Your task to perform on an android device: Set the phone to "Do not disturb". Image 0: 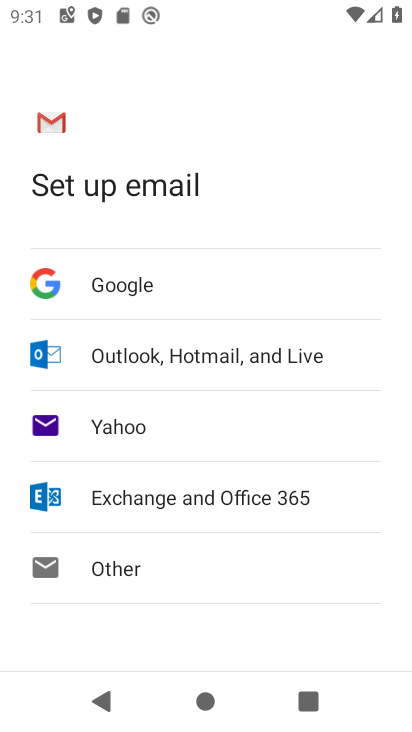
Step 0: press home button
Your task to perform on an android device: Set the phone to "Do not disturb". Image 1: 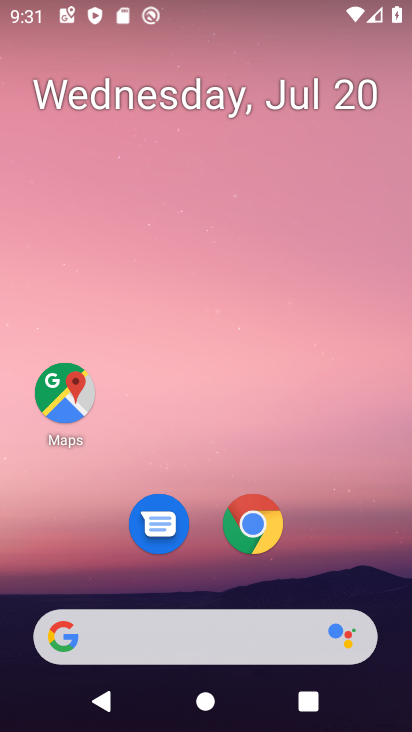
Step 1: drag from (203, 639) to (310, 150)
Your task to perform on an android device: Set the phone to "Do not disturb". Image 2: 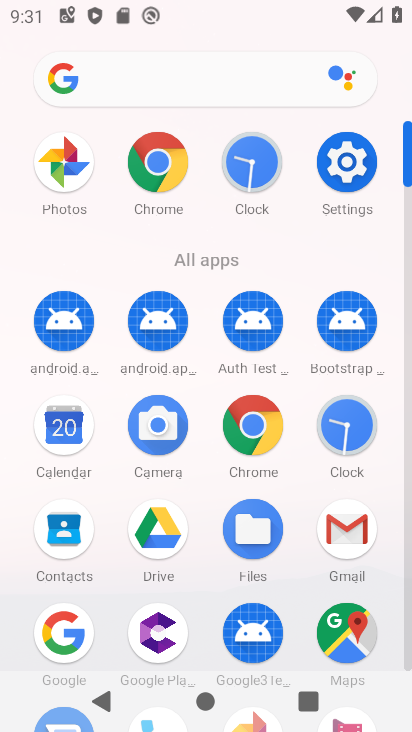
Step 2: click (353, 169)
Your task to perform on an android device: Set the phone to "Do not disturb". Image 3: 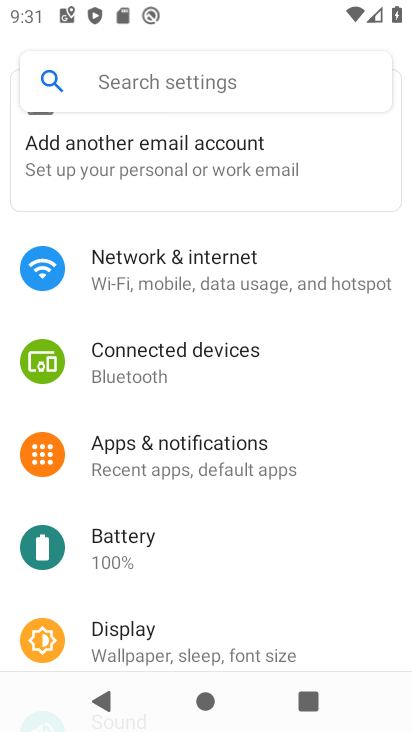
Step 3: drag from (211, 552) to (316, 94)
Your task to perform on an android device: Set the phone to "Do not disturb". Image 4: 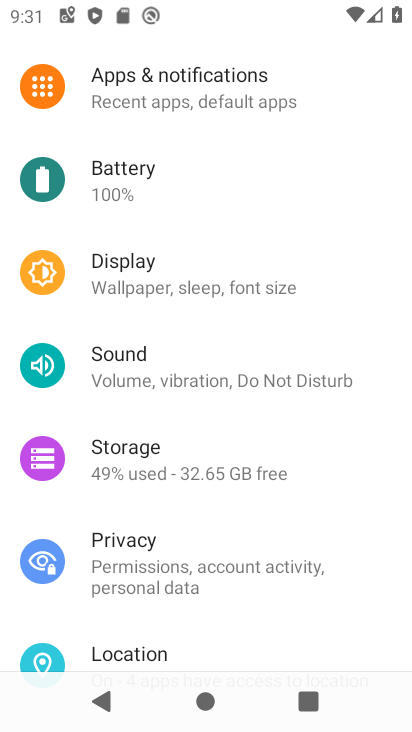
Step 4: click (146, 359)
Your task to perform on an android device: Set the phone to "Do not disturb". Image 5: 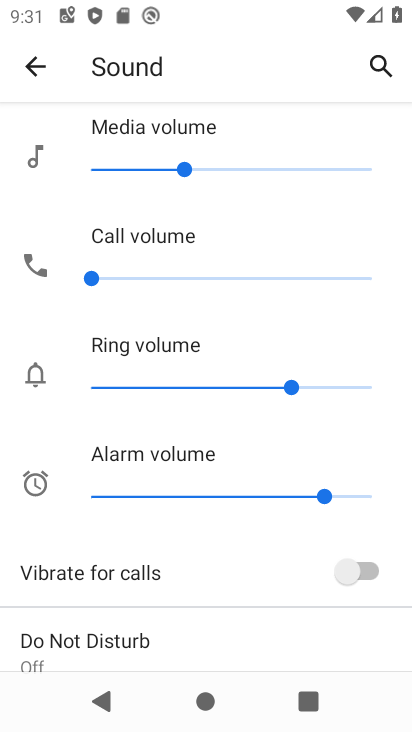
Step 5: drag from (180, 565) to (219, 234)
Your task to perform on an android device: Set the phone to "Do not disturb". Image 6: 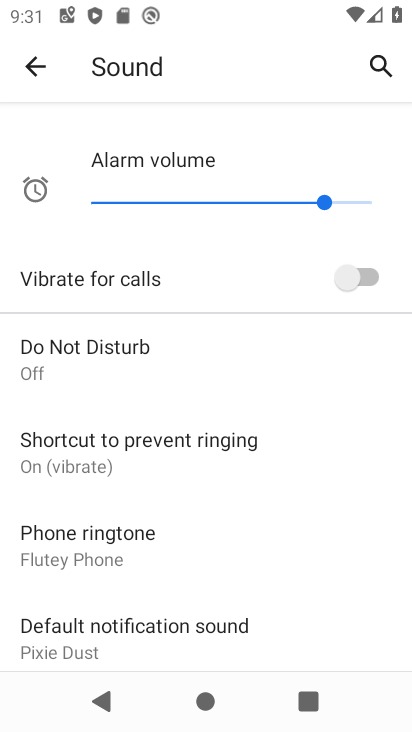
Step 6: click (118, 353)
Your task to perform on an android device: Set the phone to "Do not disturb". Image 7: 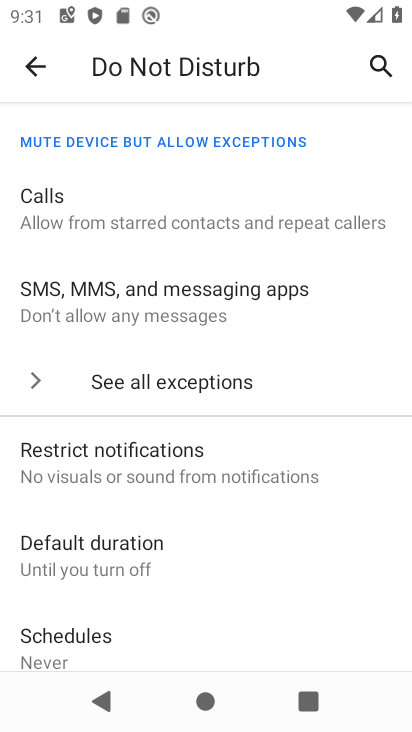
Step 7: drag from (187, 572) to (278, 283)
Your task to perform on an android device: Set the phone to "Do not disturb". Image 8: 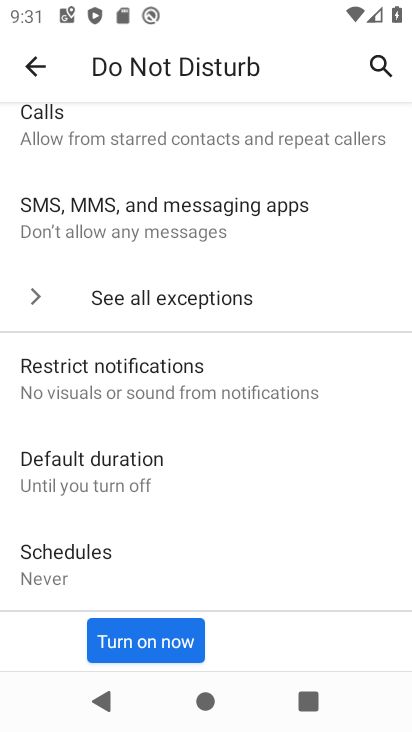
Step 8: click (139, 643)
Your task to perform on an android device: Set the phone to "Do not disturb". Image 9: 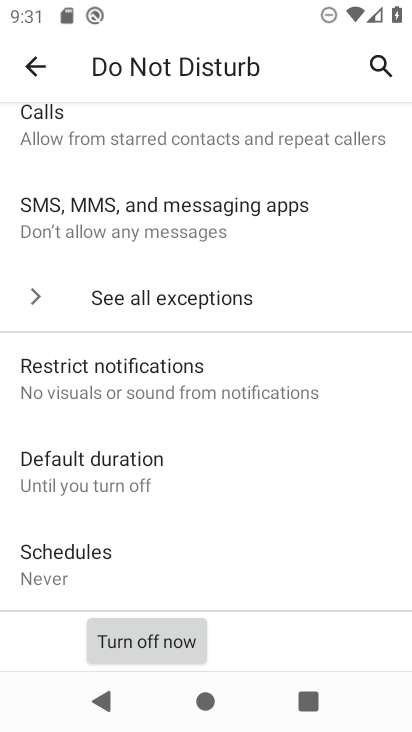
Step 9: task complete